Your task to perform on an android device: check out phone information Image 0: 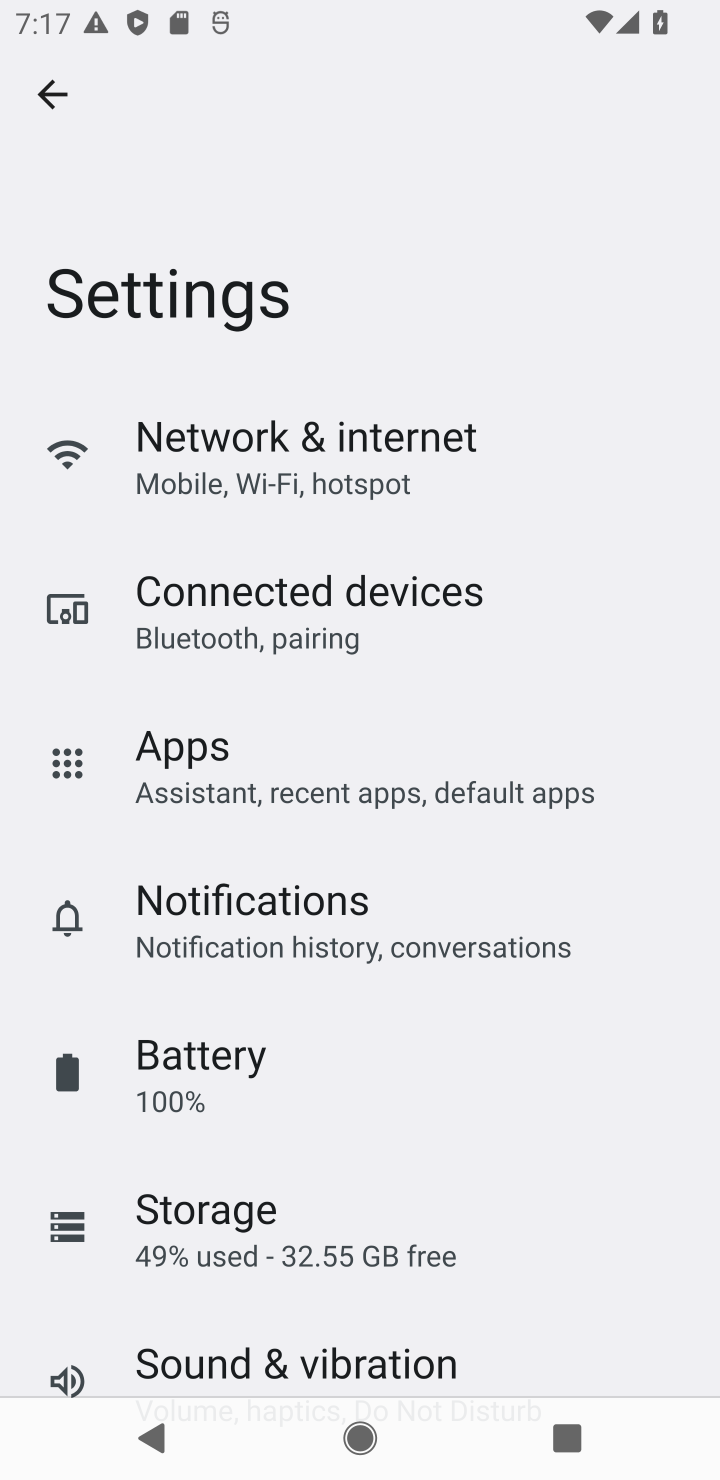
Step 0: drag from (248, 1241) to (479, 216)
Your task to perform on an android device: check out phone information Image 1: 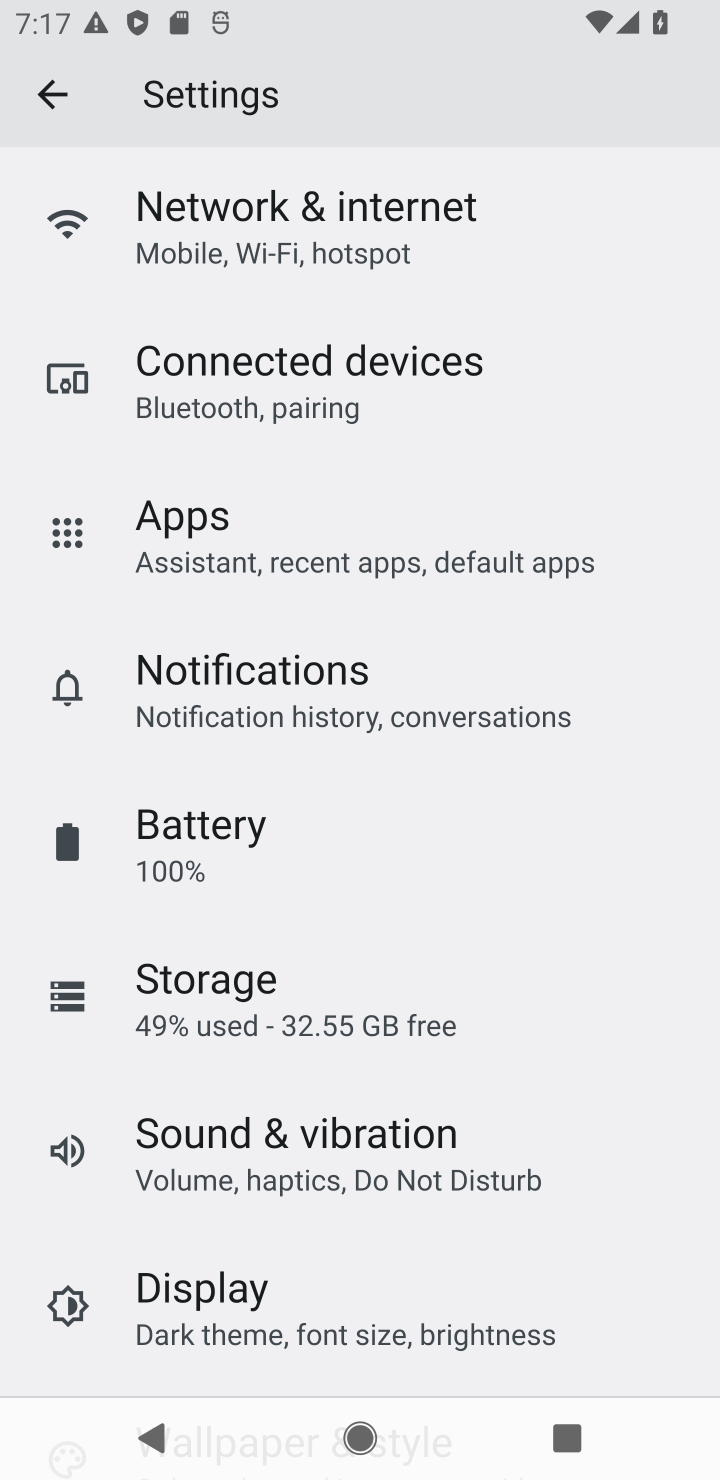
Step 1: drag from (142, 1291) to (322, 545)
Your task to perform on an android device: check out phone information Image 2: 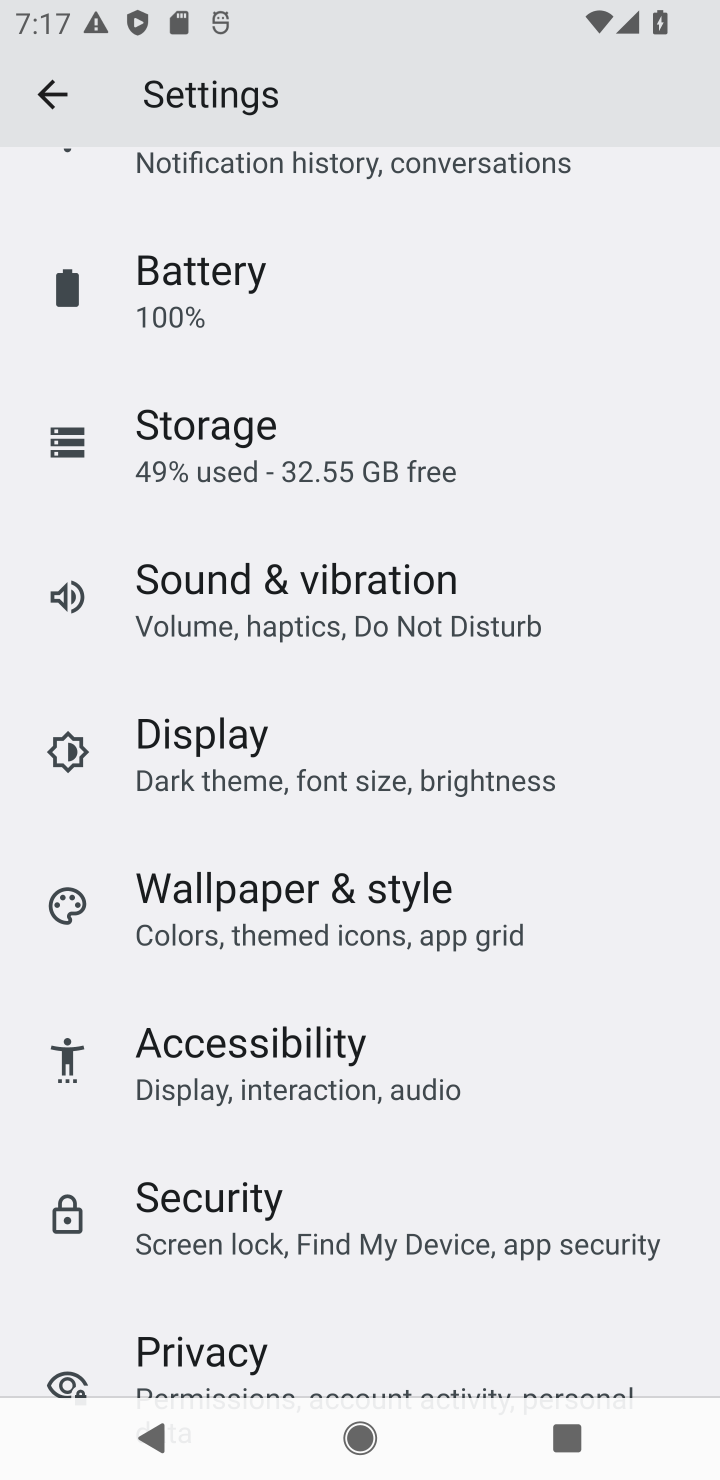
Step 2: drag from (302, 1380) to (362, 639)
Your task to perform on an android device: check out phone information Image 3: 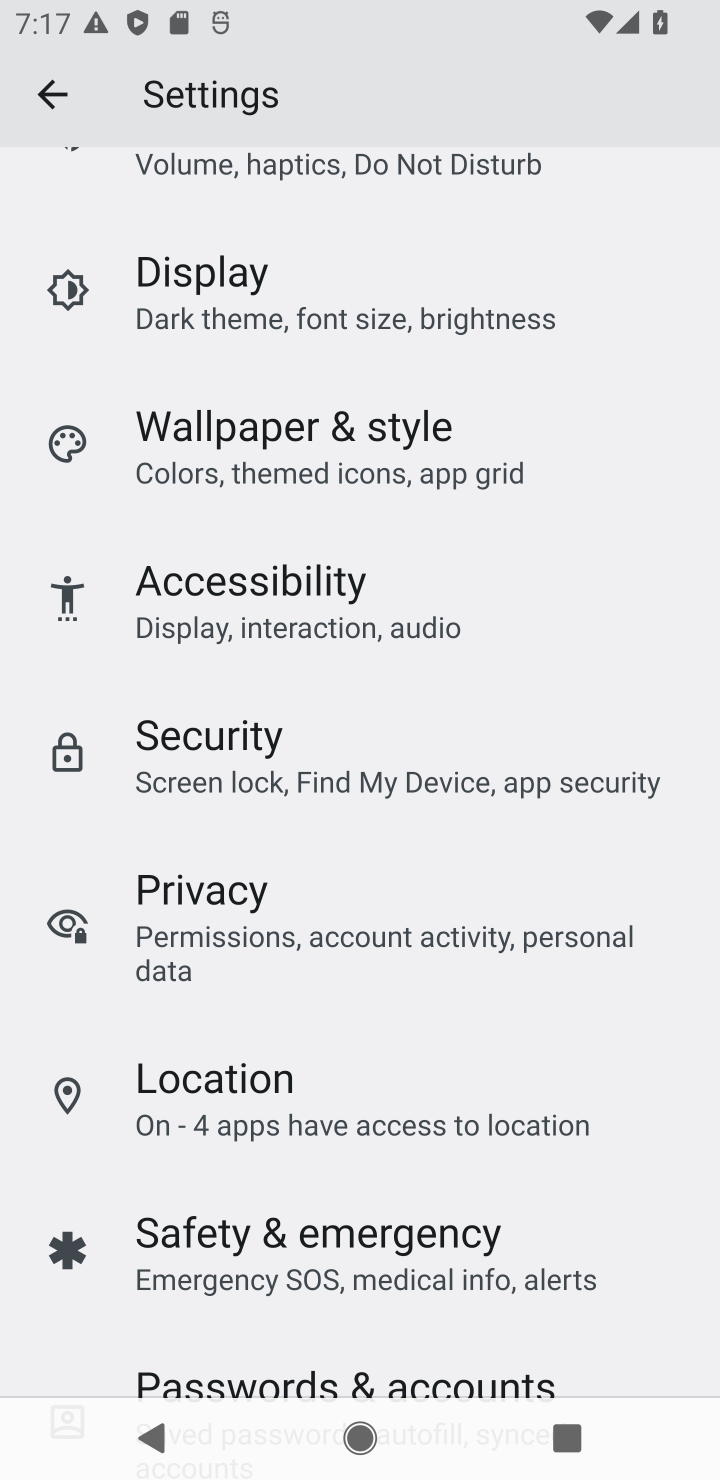
Step 3: drag from (339, 1299) to (380, 717)
Your task to perform on an android device: check out phone information Image 4: 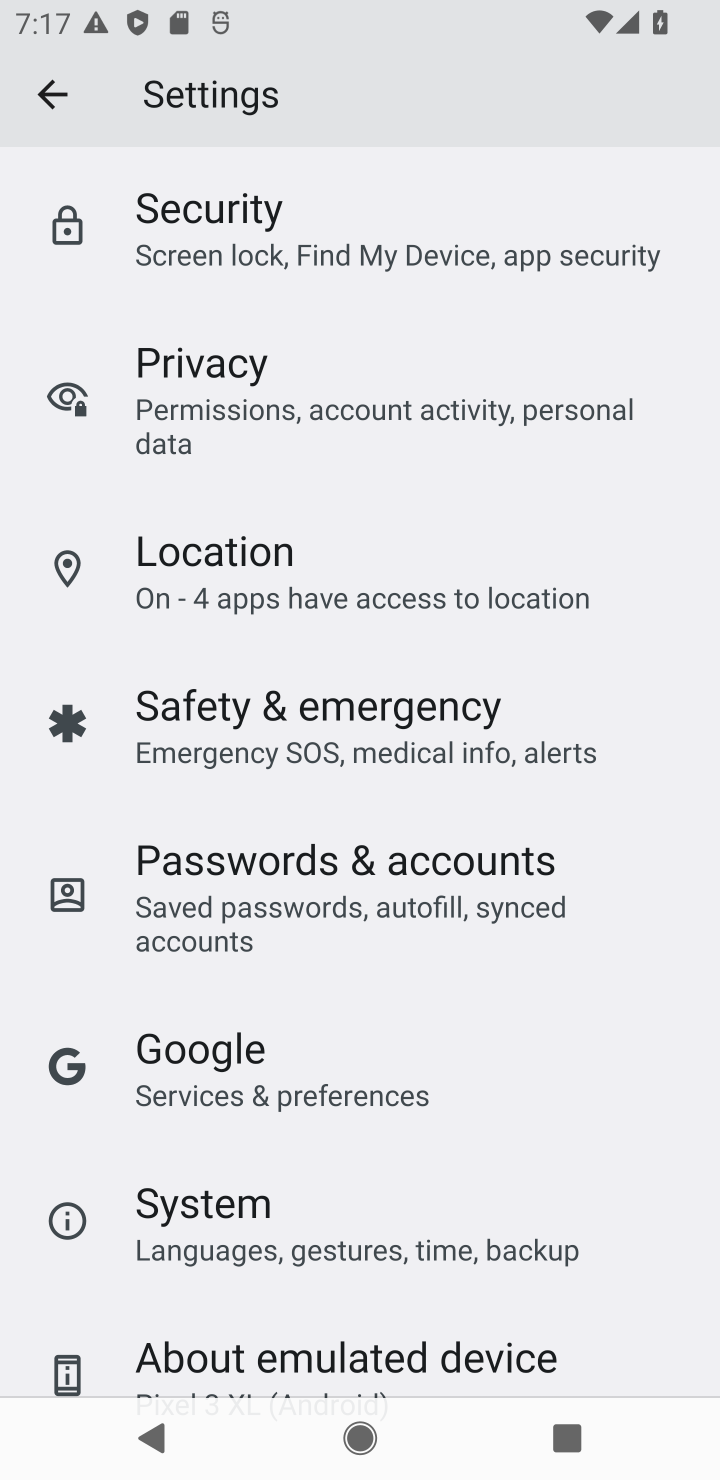
Step 4: drag from (256, 1391) to (506, 550)
Your task to perform on an android device: check out phone information Image 5: 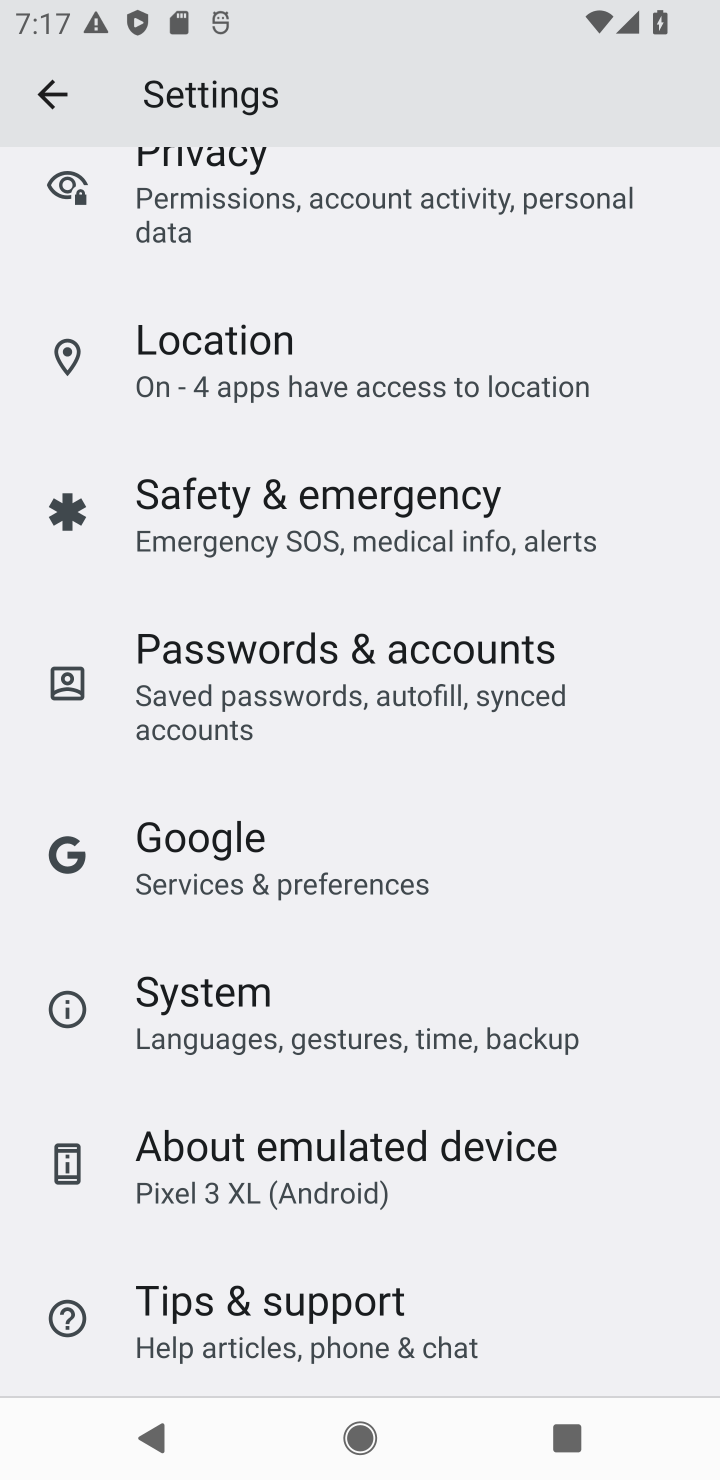
Step 5: click (415, 1140)
Your task to perform on an android device: check out phone information Image 6: 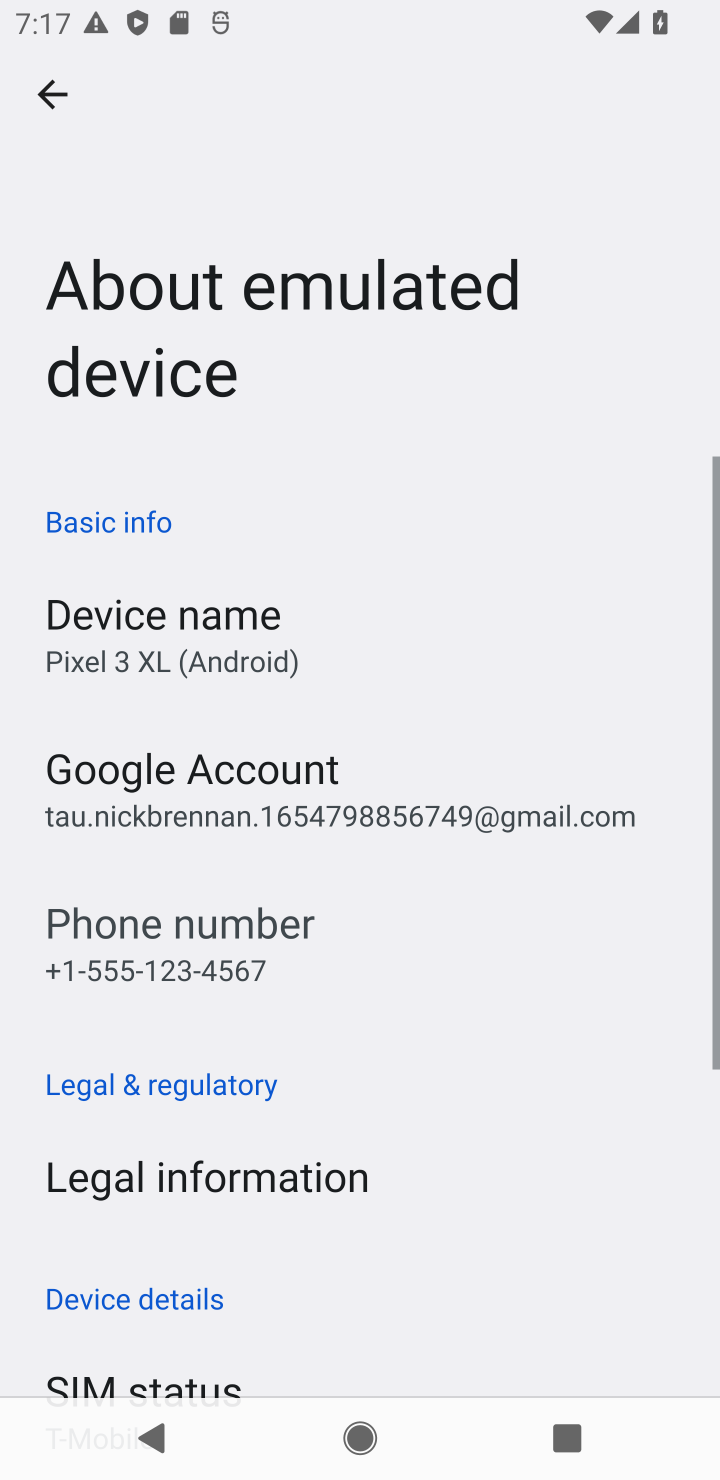
Step 6: task complete